Your task to perform on an android device: When is my next meeting? Image 0: 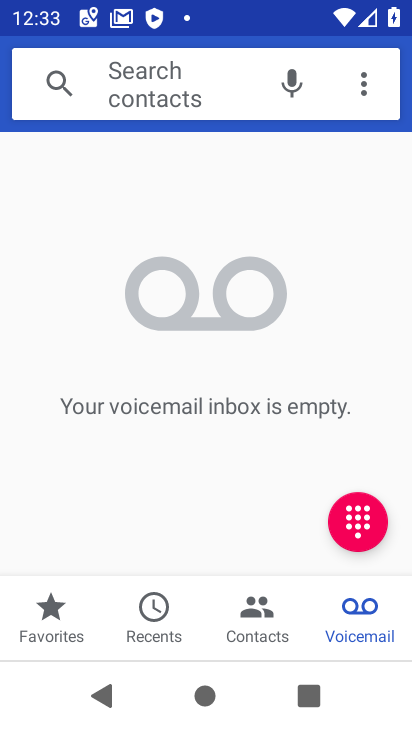
Step 0: press back button
Your task to perform on an android device: When is my next meeting? Image 1: 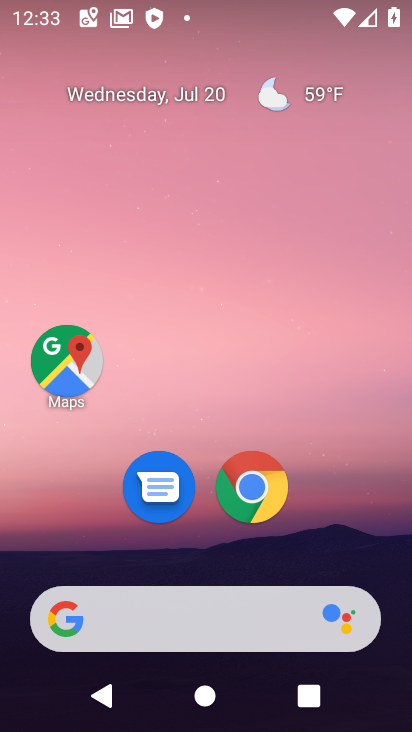
Step 1: drag from (128, 551) to (259, 0)
Your task to perform on an android device: When is my next meeting? Image 2: 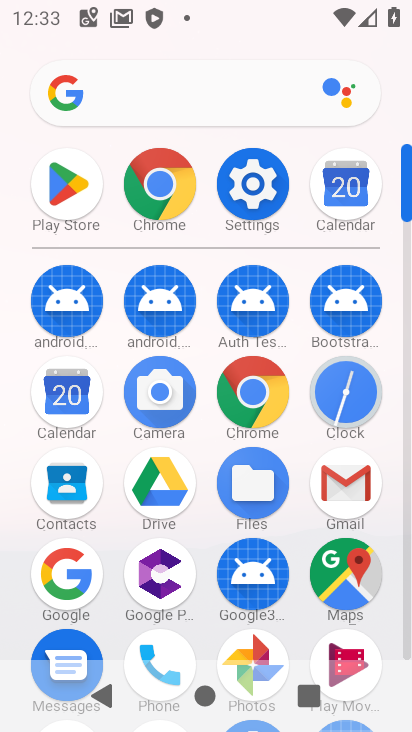
Step 2: click (70, 393)
Your task to perform on an android device: When is my next meeting? Image 3: 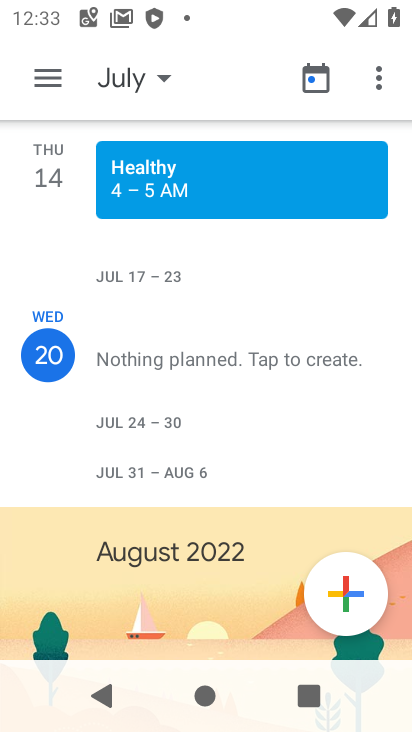
Step 3: task complete